Your task to perform on an android device: Open the web browser Image 0: 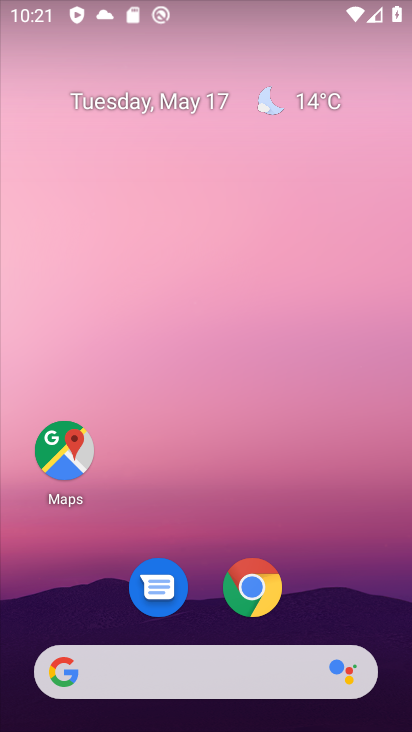
Step 0: click (262, 583)
Your task to perform on an android device: Open the web browser Image 1: 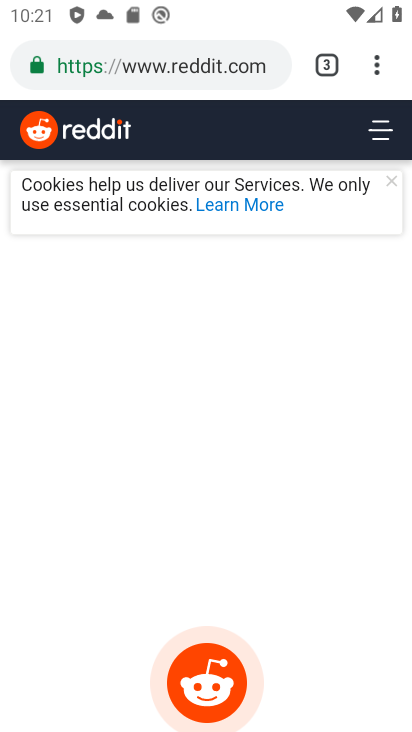
Step 1: task complete